Your task to perform on an android device: add a contact in the contacts app Image 0: 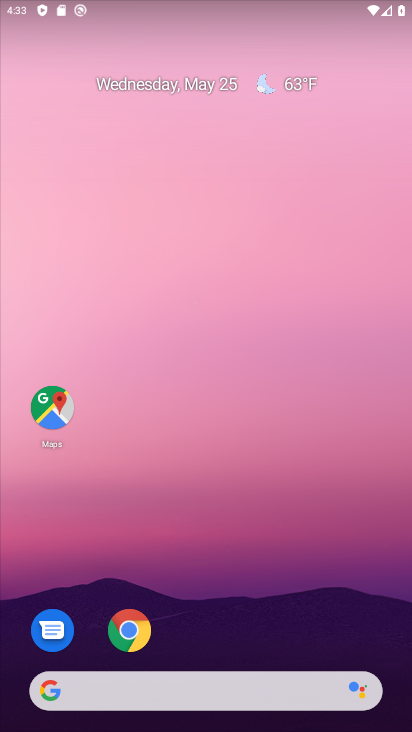
Step 0: drag from (220, 631) to (259, 59)
Your task to perform on an android device: add a contact in the contacts app Image 1: 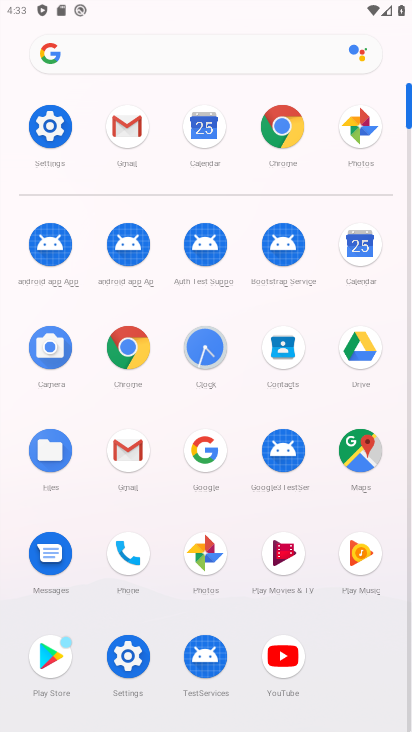
Step 1: click (274, 348)
Your task to perform on an android device: add a contact in the contacts app Image 2: 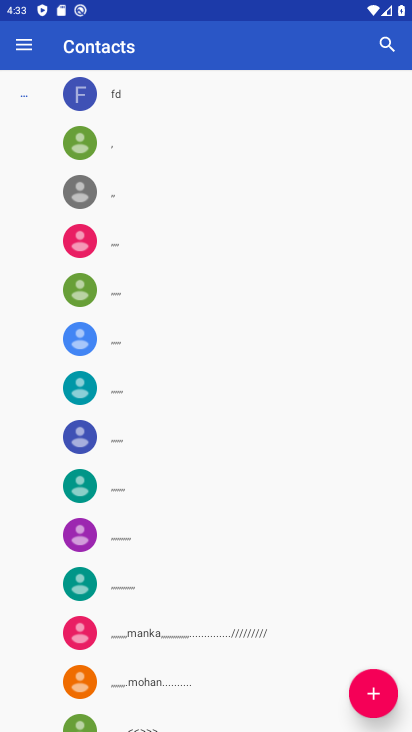
Step 2: click (369, 683)
Your task to perform on an android device: add a contact in the contacts app Image 3: 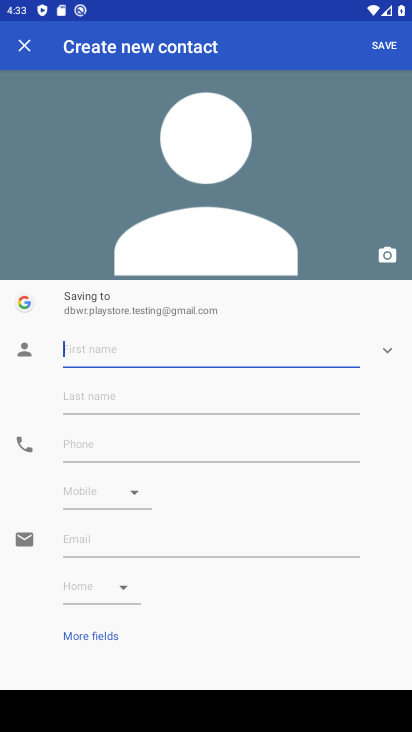
Step 3: click (80, 345)
Your task to perform on an android device: add a contact in the contacts app Image 4: 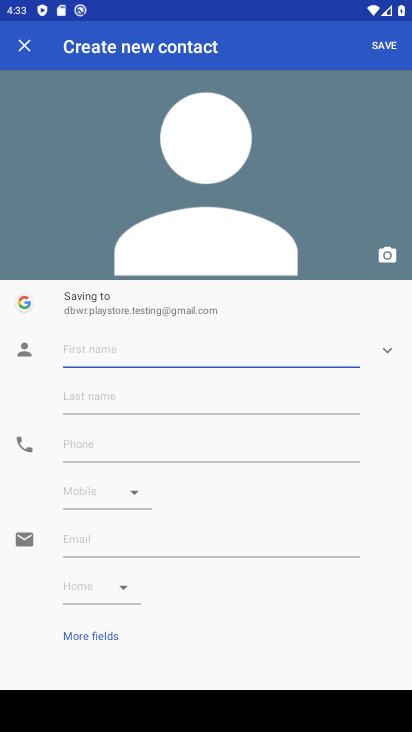
Step 4: type "gvgv"
Your task to perform on an android device: add a contact in the contacts app Image 5: 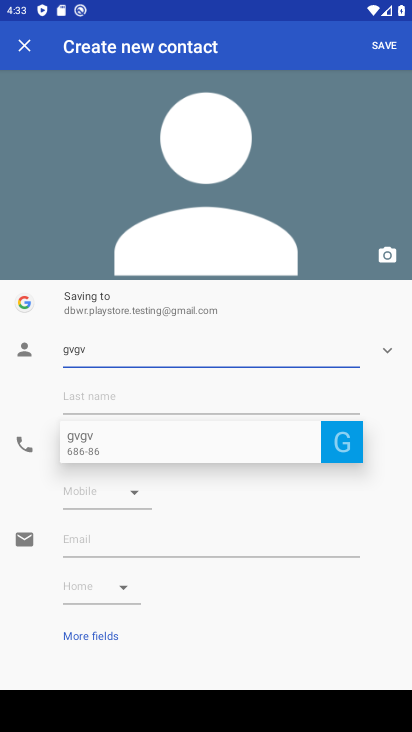
Step 5: click (89, 446)
Your task to perform on an android device: add a contact in the contacts app Image 6: 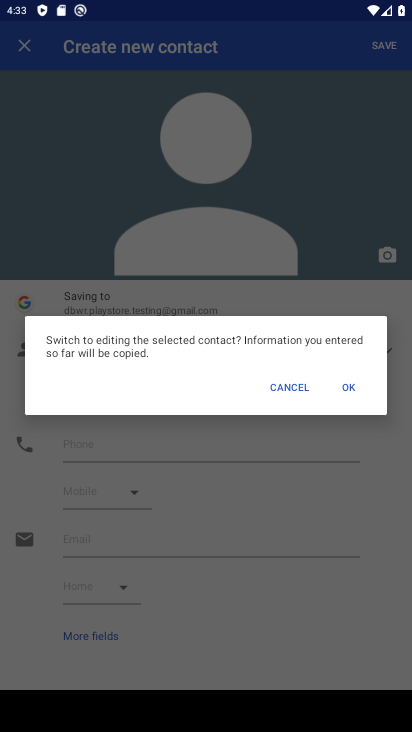
Step 6: click (340, 381)
Your task to perform on an android device: add a contact in the contacts app Image 7: 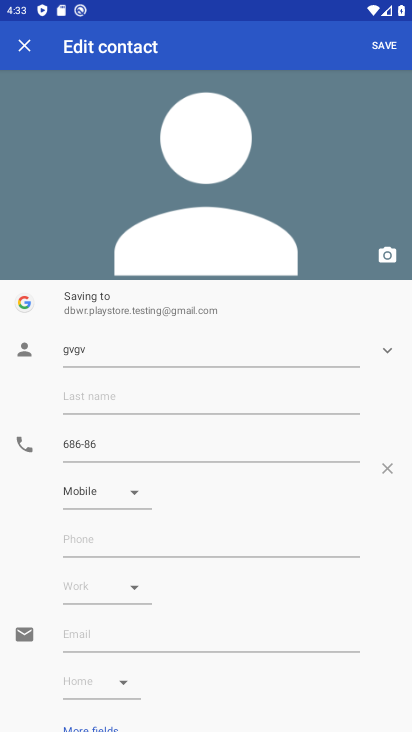
Step 7: task complete